Your task to perform on an android device: Go to Google maps Image 0: 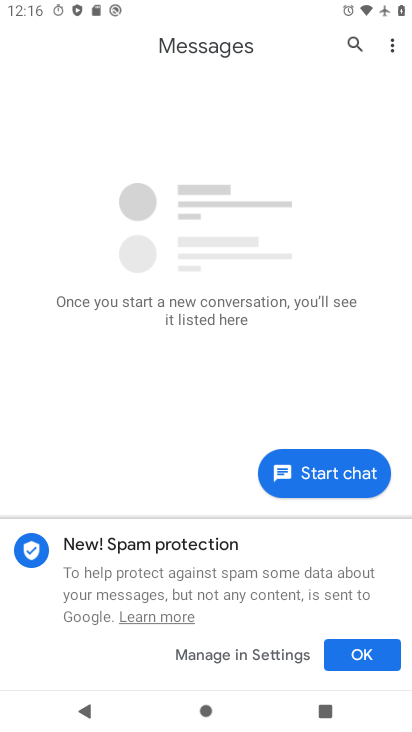
Step 0: press home button
Your task to perform on an android device: Go to Google maps Image 1: 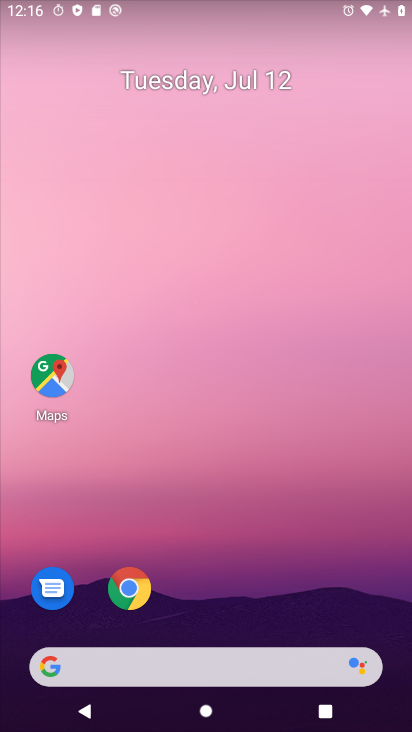
Step 1: click (60, 381)
Your task to perform on an android device: Go to Google maps Image 2: 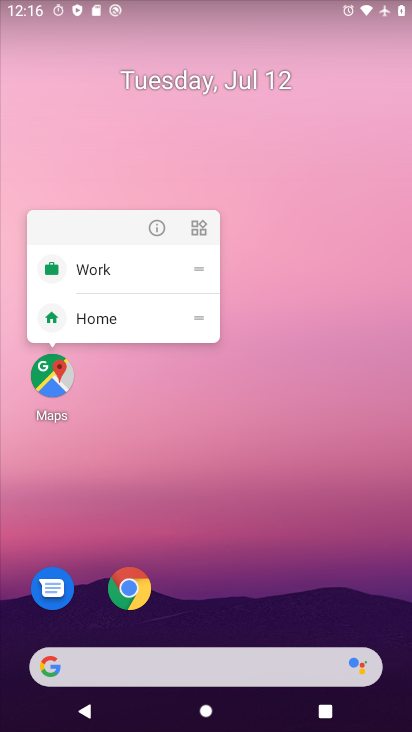
Step 2: click (57, 381)
Your task to perform on an android device: Go to Google maps Image 3: 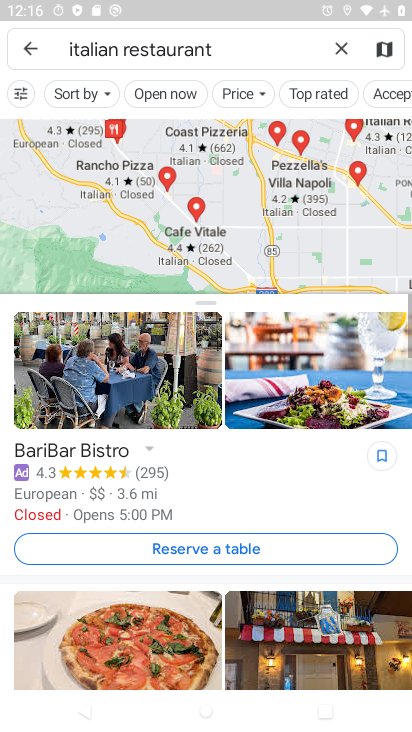
Step 3: click (27, 46)
Your task to perform on an android device: Go to Google maps Image 4: 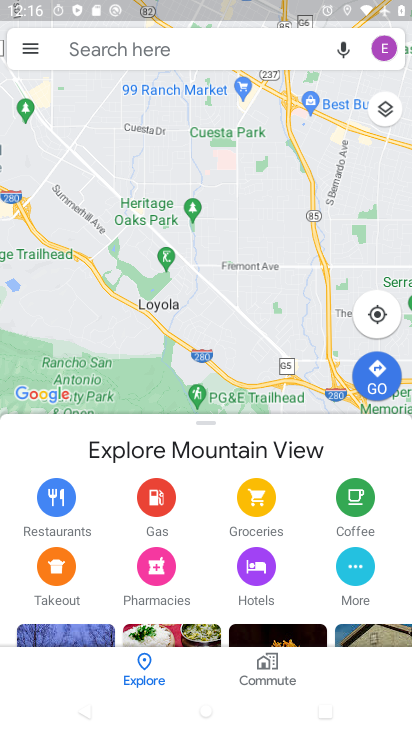
Step 4: task complete